Your task to perform on an android device: Search for vegetarian restaurants on Maps Image 0: 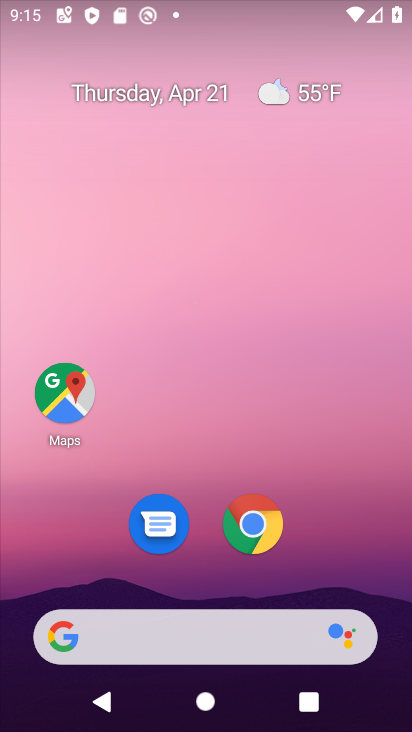
Step 0: click (55, 389)
Your task to perform on an android device: Search for vegetarian restaurants on Maps Image 1: 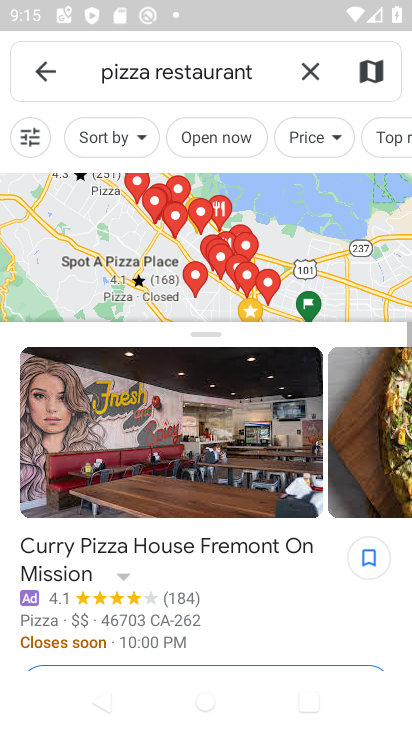
Step 1: click (311, 67)
Your task to perform on an android device: Search for vegetarian restaurants on Maps Image 2: 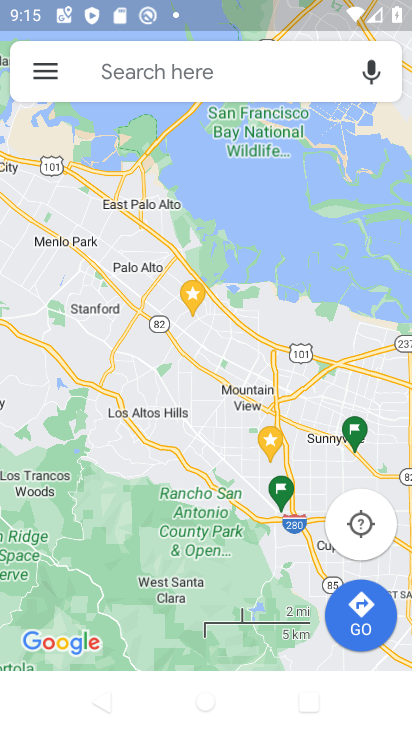
Step 2: click (230, 63)
Your task to perform on an android device: Search for vegetarian restaurants on Maps Image 3: 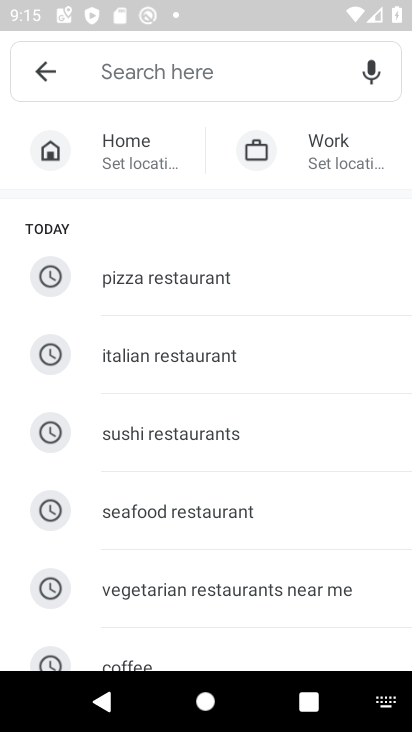
Step 3: click (223, 581)
Your task to perform on an android device: Search for vegetarian restaurants on Maps Image 4: 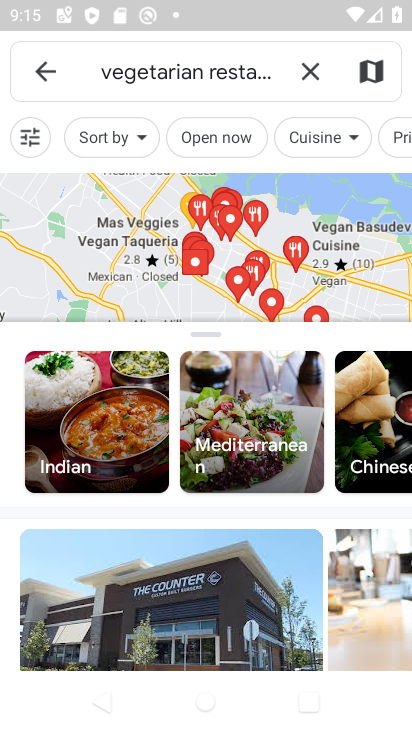
Step 4: task complete